Your task to perform on an android device: Open maps Image 0: 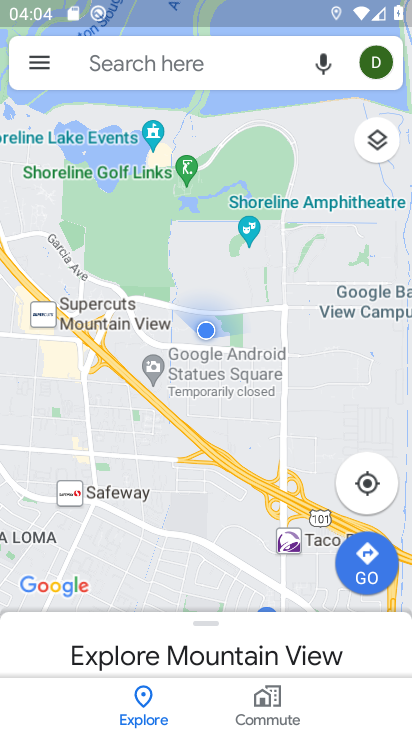
Step 0: task complete